Your task to perform on an android device: toggle show notifications on the lock screen Image 0: 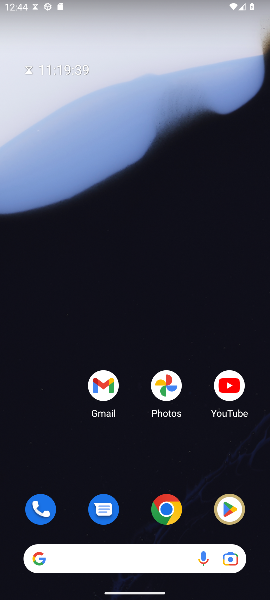
Step 0: drag from (152, 491) to (190, 89)
Your task to perform on an android device: toggle show notifications on the lock screen Image 1: 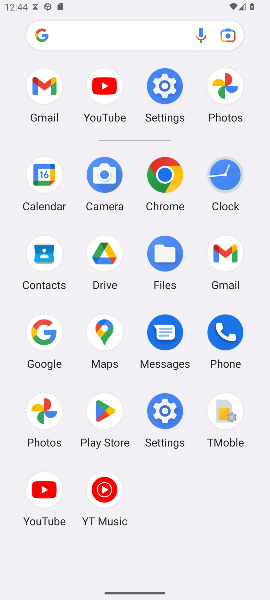
Step 1: click (169, 416)
Your task to perform on an android device: toggle show notifications on the lock screen Image 2: 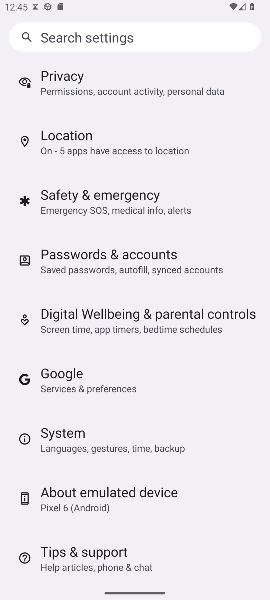
Step 2: drag from (176, 153) to (255, 517)
Your task to perform on an android device: toggle show notifications on the lock screen Image 3: 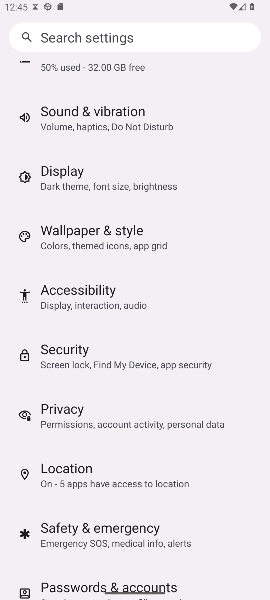
Step 3: drag from (127, 163) to (210, 482)
Your task to perform on an android device: toggle show notifications on the lock screen Image 4: 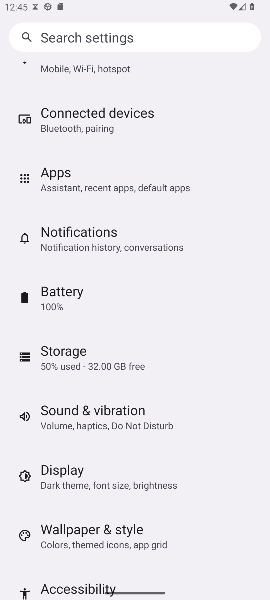
Step 4: click (99, 244)
Your task to perform on an android device: toggle show notifications on the lock screen Image 5: 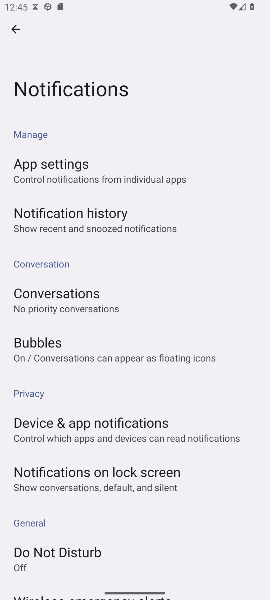
Step 5: click (65, 491)
Your task to perform on an android device: toggle show notifications on the lock screen Image 6: 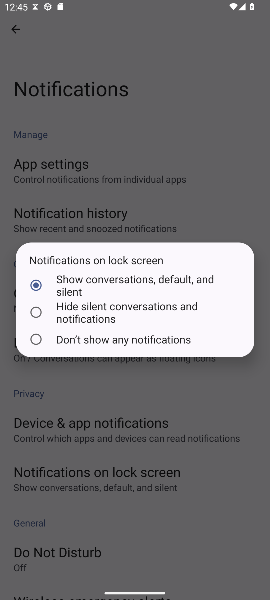
Step 6: click (39, 339)
Your task to perform on an android device: toggle show notifications on the lock screen Image 7: 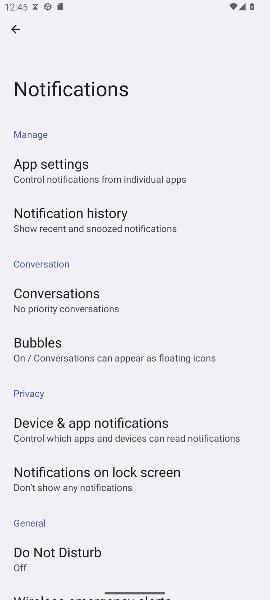
Step 7: task complete